Your task to perform on an android device: set an alarm Image 0: 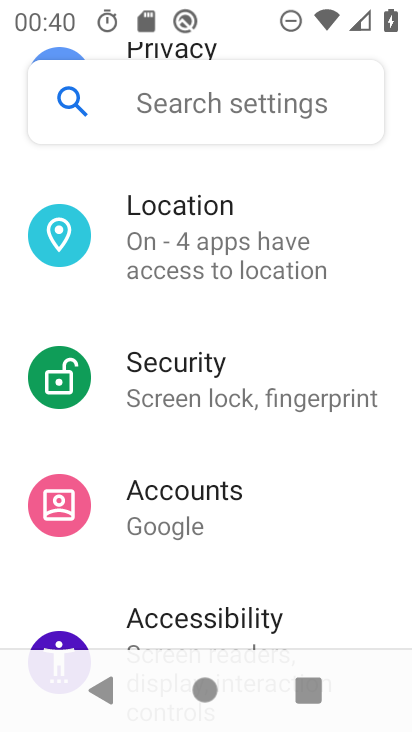
Step 0: press home button
Your task to perform on an android device: set an alarm Image 1: 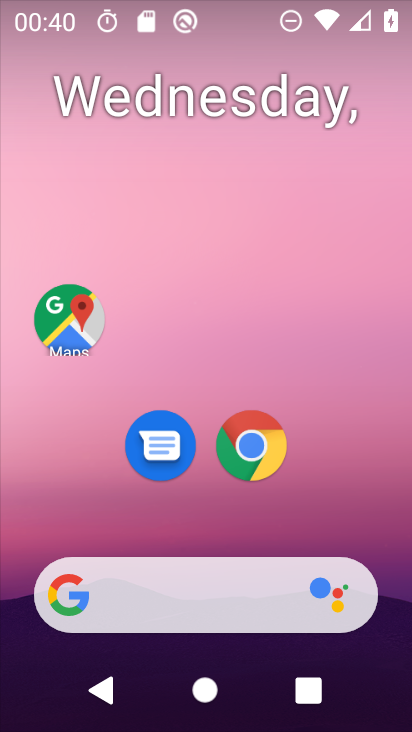
Step 1: drag from (335, 535) to (371, 69)
Your task to perform on an android device: set an alarm Image 2: 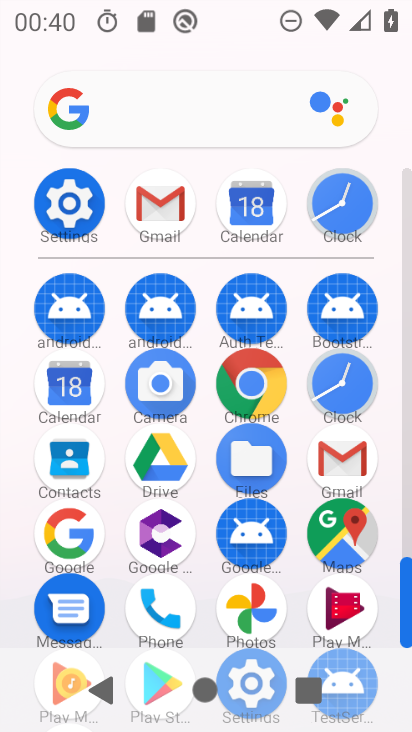
Step 2: click (330, 401)
Your task to perform on an android device: set an alarm Image 3: 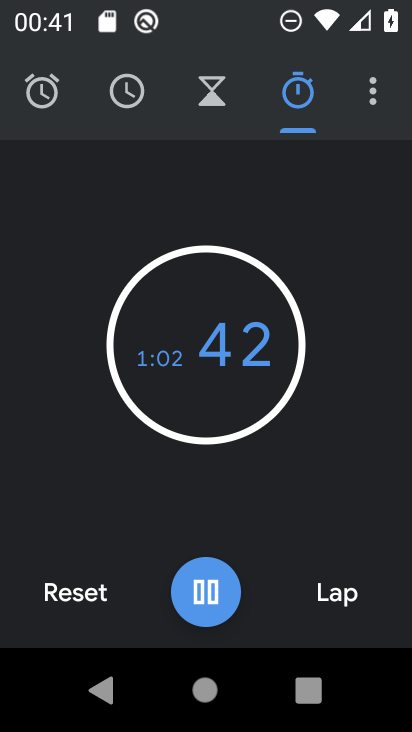
Step 3: click (30, 106)
Your task to perform on an android device: set an alarm Image 4: 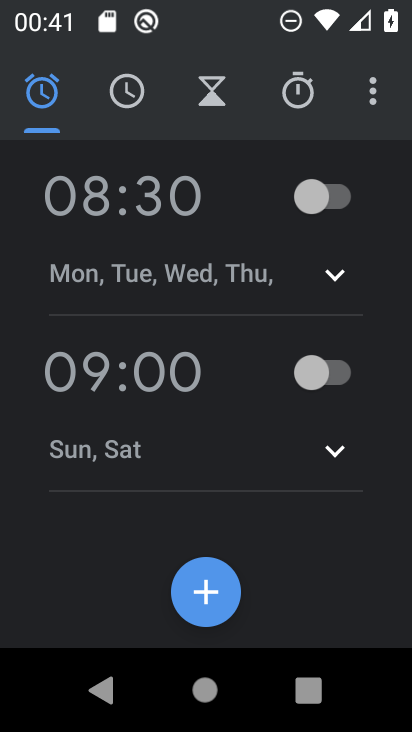
Step 4: click (211, 596)
Your task to perform on an android device: set an alarm Image 5: 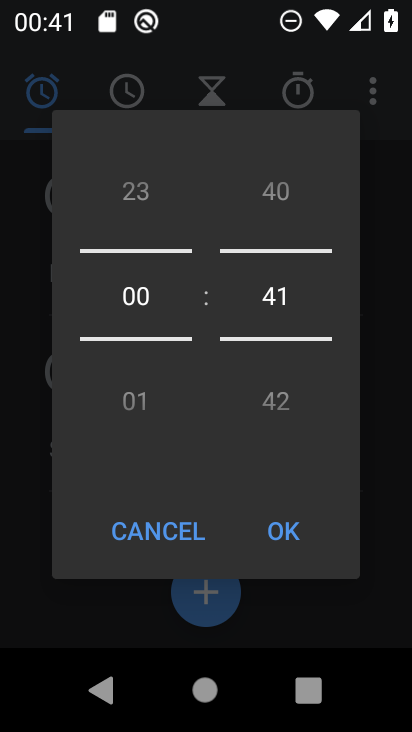
Step 5: click (291, 529)
Your task to perform on an android device: set an alarm Image 6: 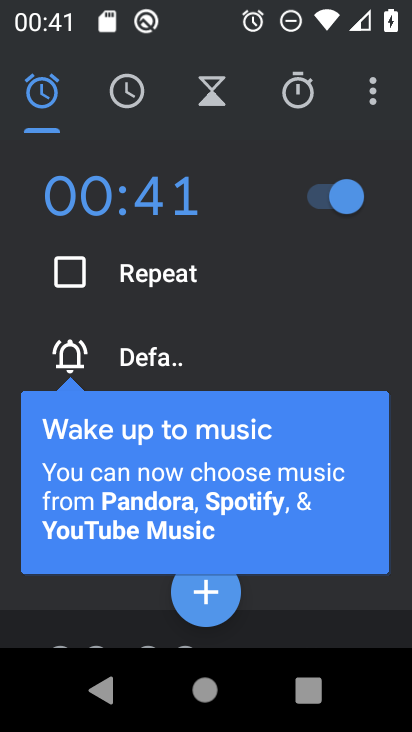
Step 6: task complete